Your task to perform on an android device: delete a single message in the gmail app Image 0: 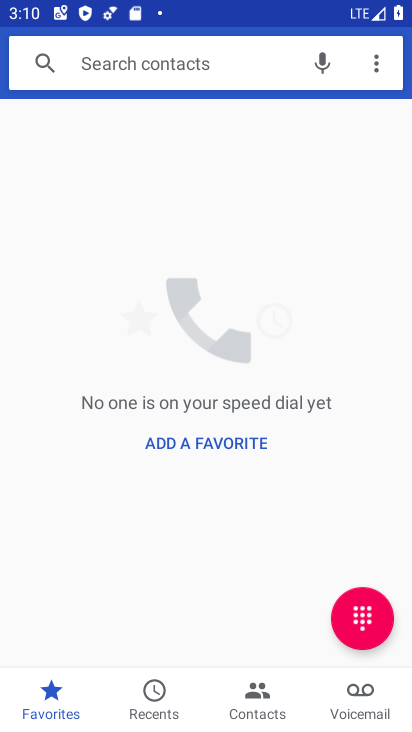
Step 0: press home button
Your task to perform on an android device: delete a single message in the gmail app Image 1: 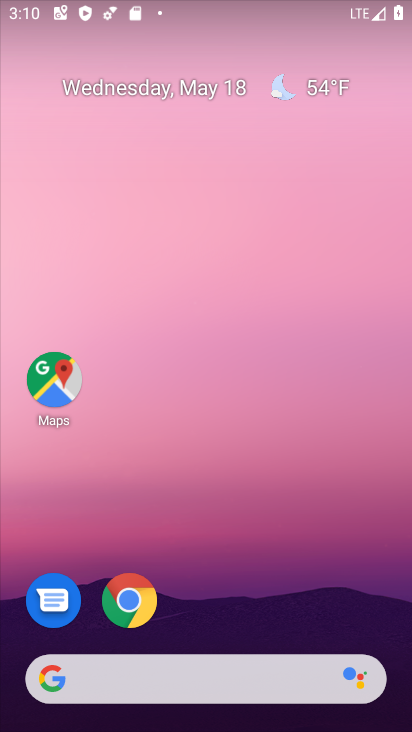
Step 1: drag from (116, 679) to (264, 175)
Your task to perform on an android device: delete a single message in the gmail app Image 2: 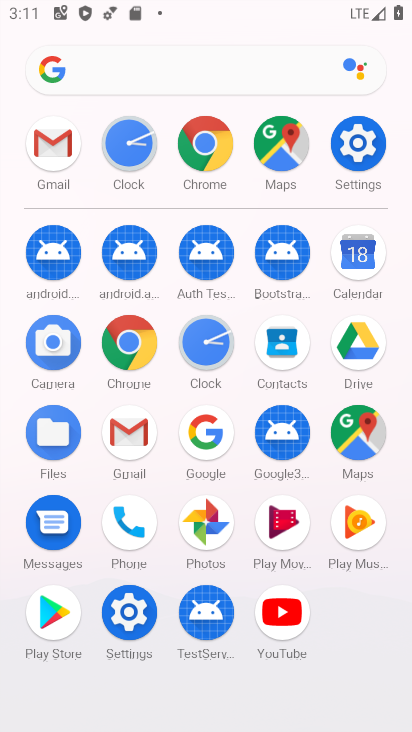
Step 2: click (50, 157)
Your task to perform on an android device: delete a single message in the gmail app Image 3: 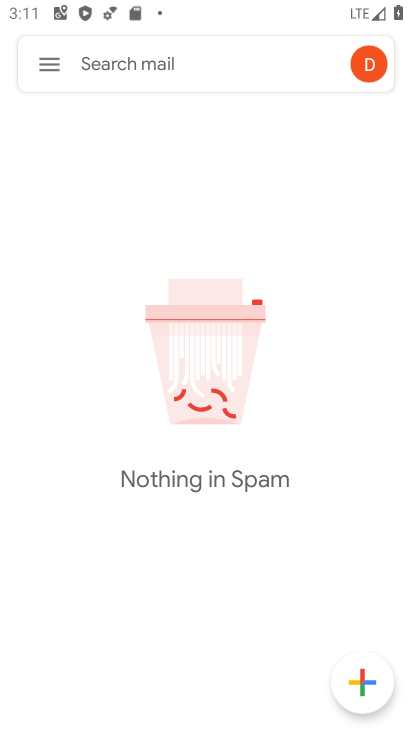
Step 3: click (51, 74)
Your task to perform on an android device: delete a single message in the gmail app Image 4: 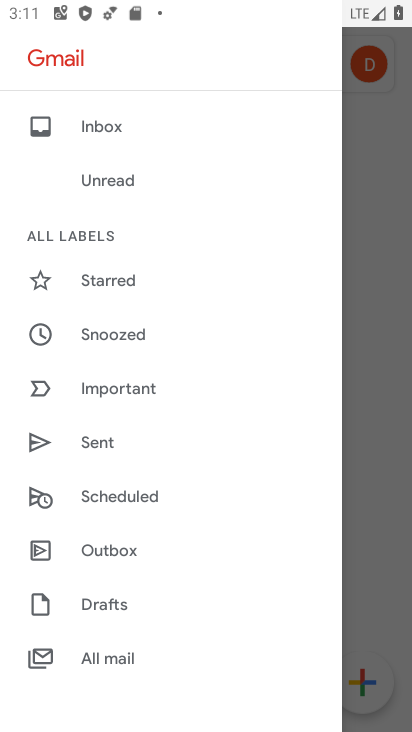
Step 4: click (107, 652)
Your task to perform on an android device: delete a single message in the gmail app Image 5: 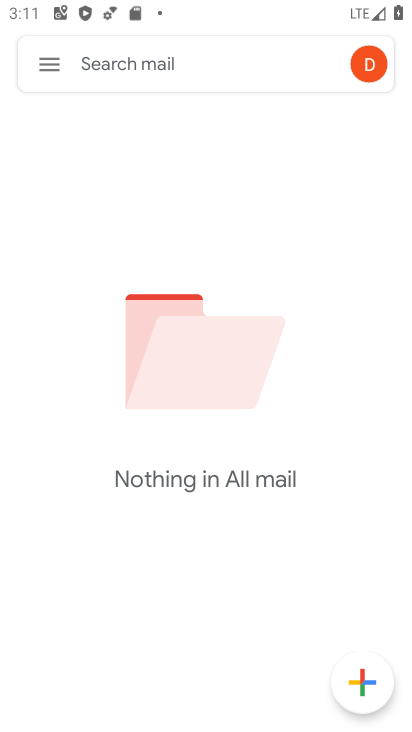
Step 5: task complete